Your task to perform on an android device: Open Google Chrome Image 0: 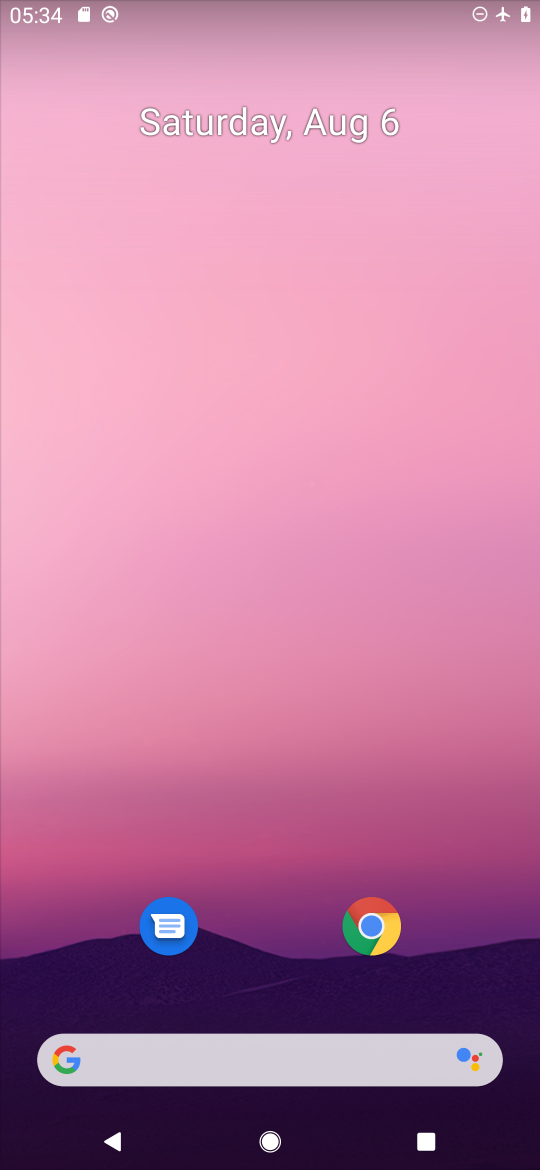
Step 0: click (350, 911)
Your task to perform on an android device: Open Google Chrome Image 1: 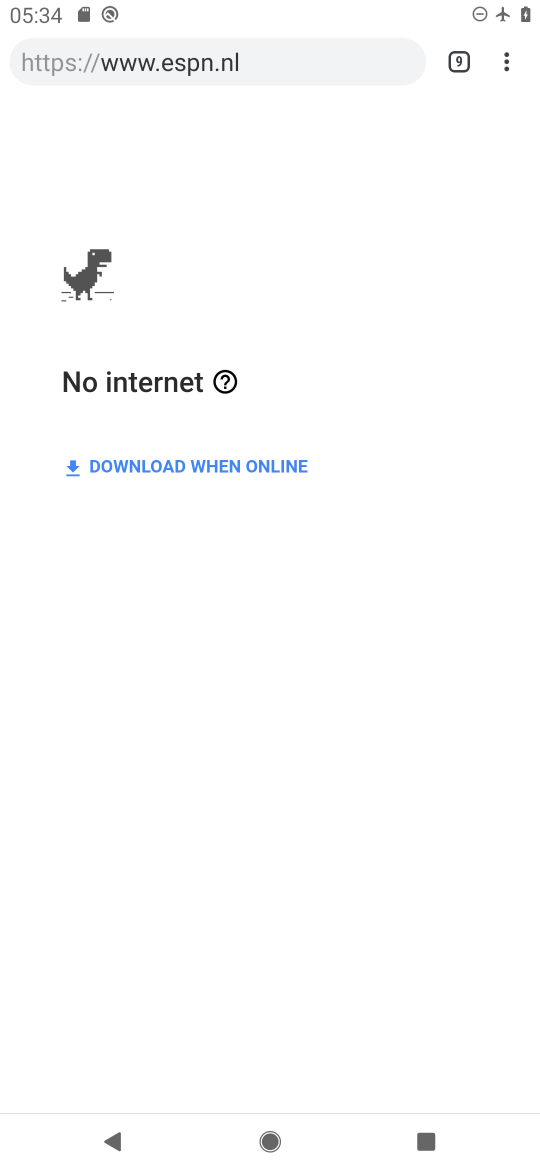
Step 1: task complete